Your task to perform on an android device: How big is a lion? Image 0: 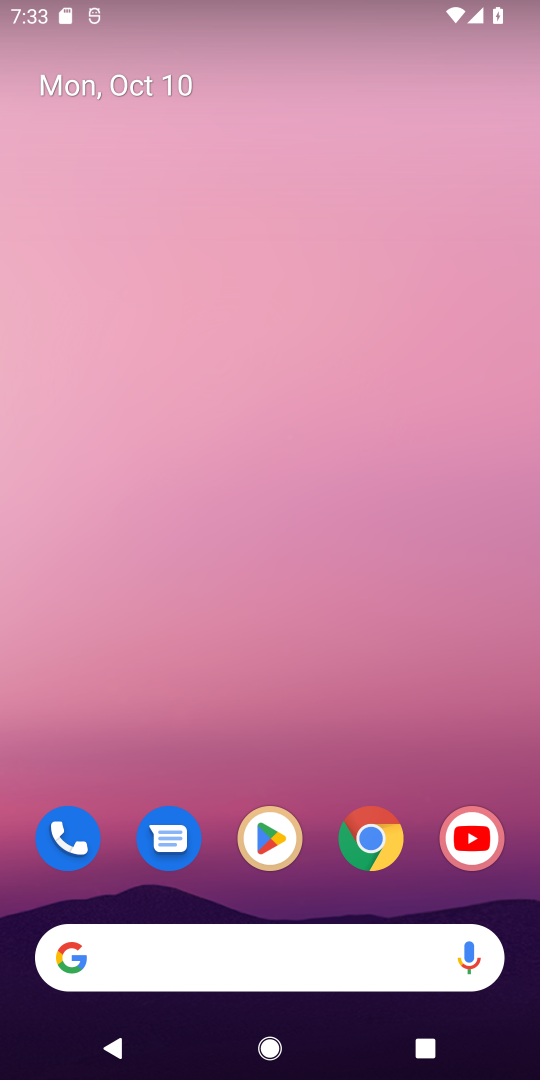
Step 0: click (366, 840)
Your task to perform on an android device: How big is a lion? Image 1: 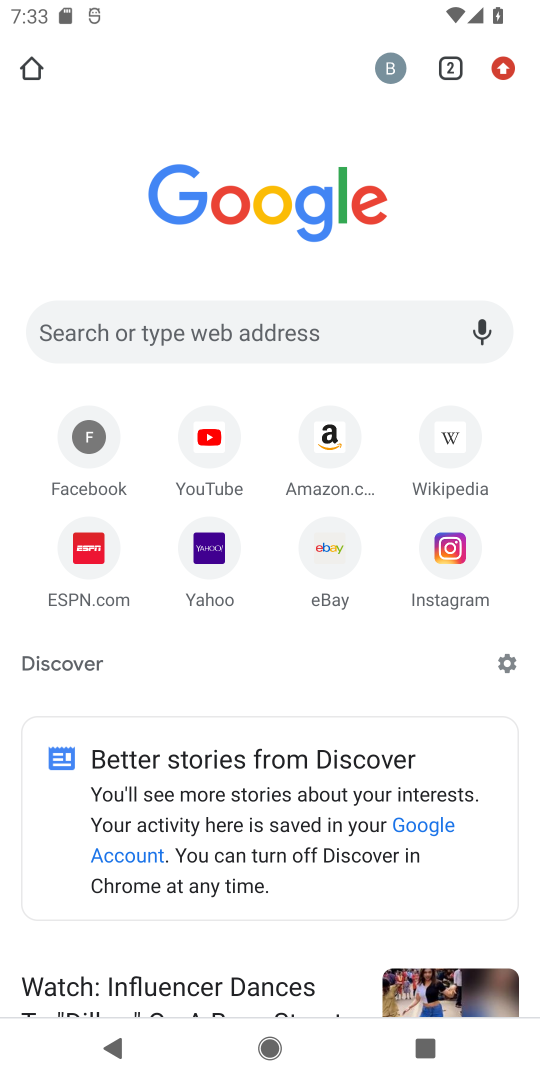
Step 1: click (196, 330)
Your task to perform on an android device: How big is a lion? Image 2: 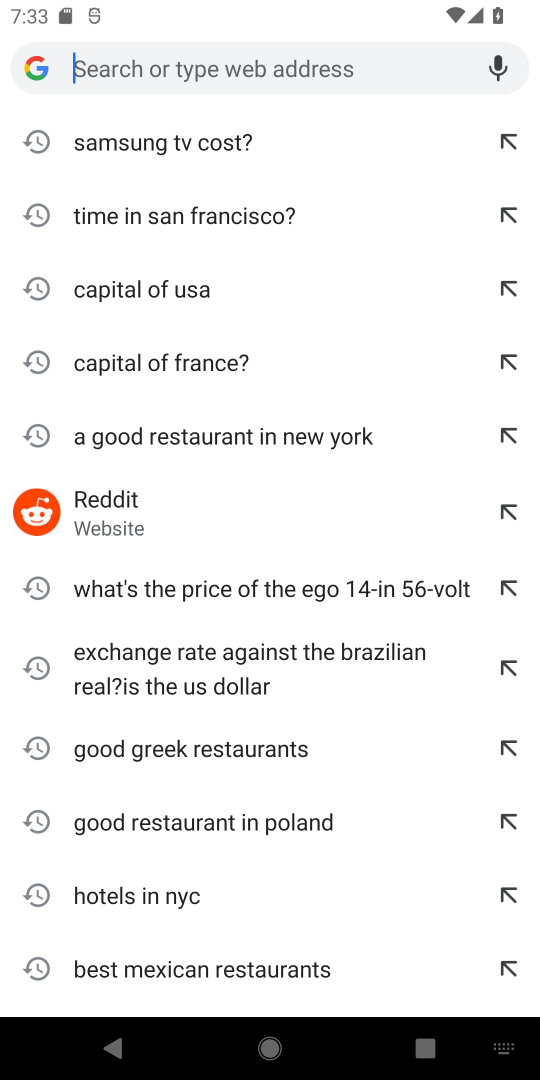
Step 2: type "How big is a lion?"
Your task to perform on an android device: How big is a lion? Image 3: 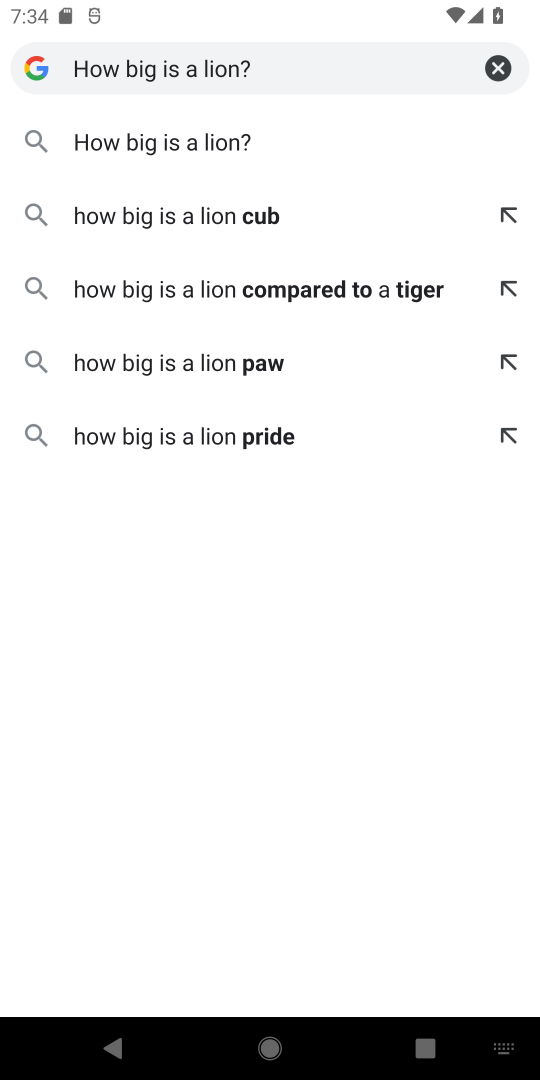
Step 3: click (122, 148)
Your task to perform on an android device: How big is a lion? Image 4: 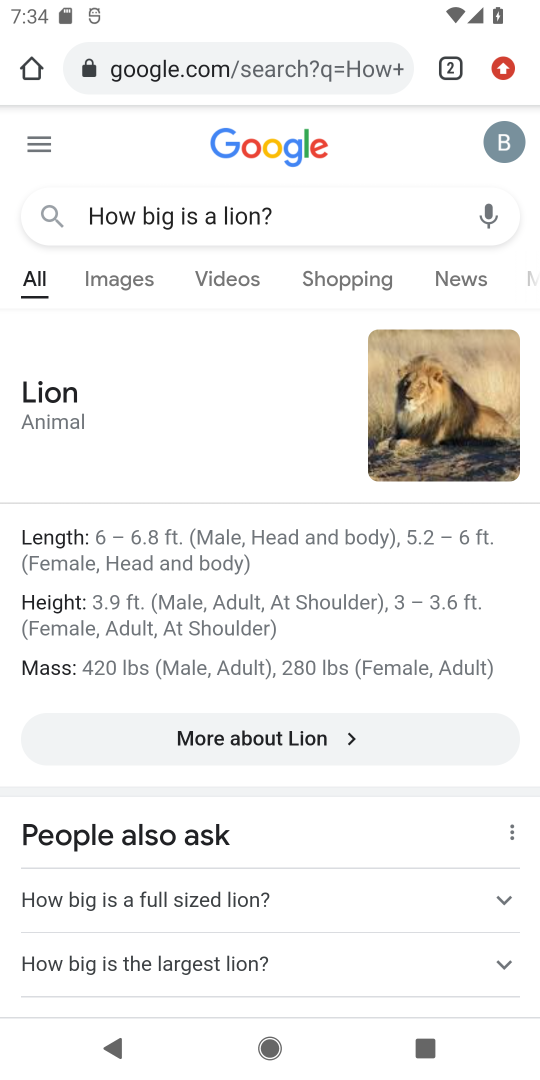
Step 4: task complete